Your task to perform on an android device: install app "eBay: The shopping marketplace" Image 0: 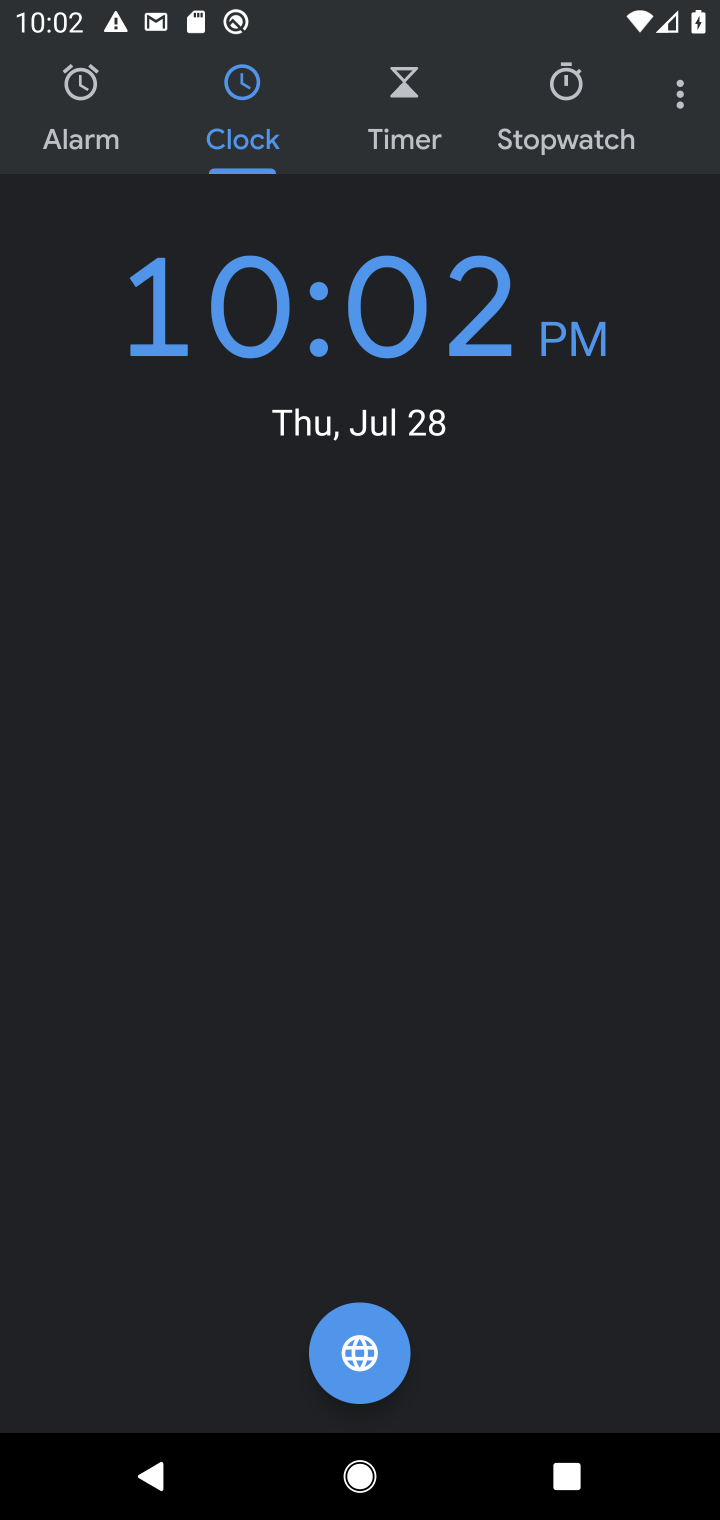
Step 0: press home button
Your task to perform on an android device: install app "eBay: The shopping marketplace" Image 1: 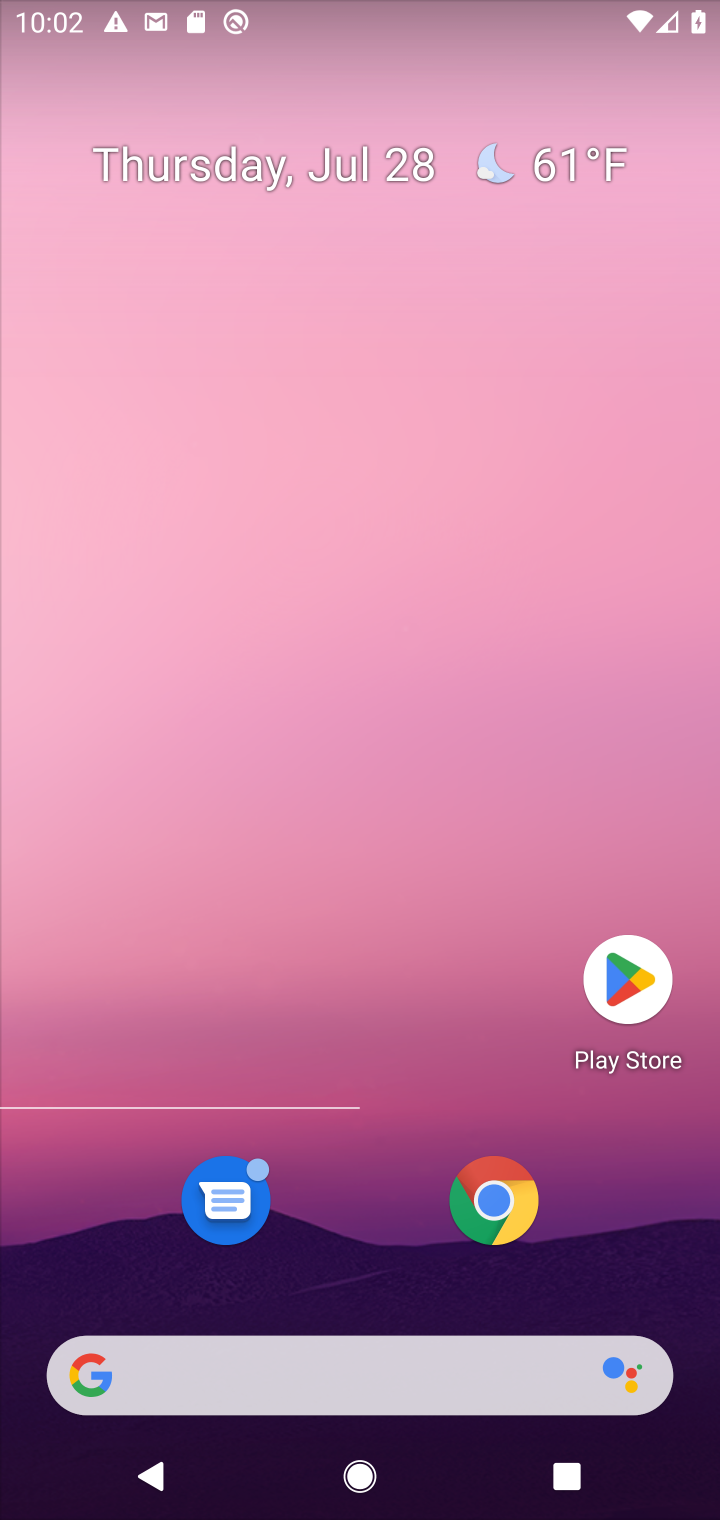
Step 1: click (626, 988)
Your task to perform on an android device: install app "eBay: The shopping marketplace" Image 2: 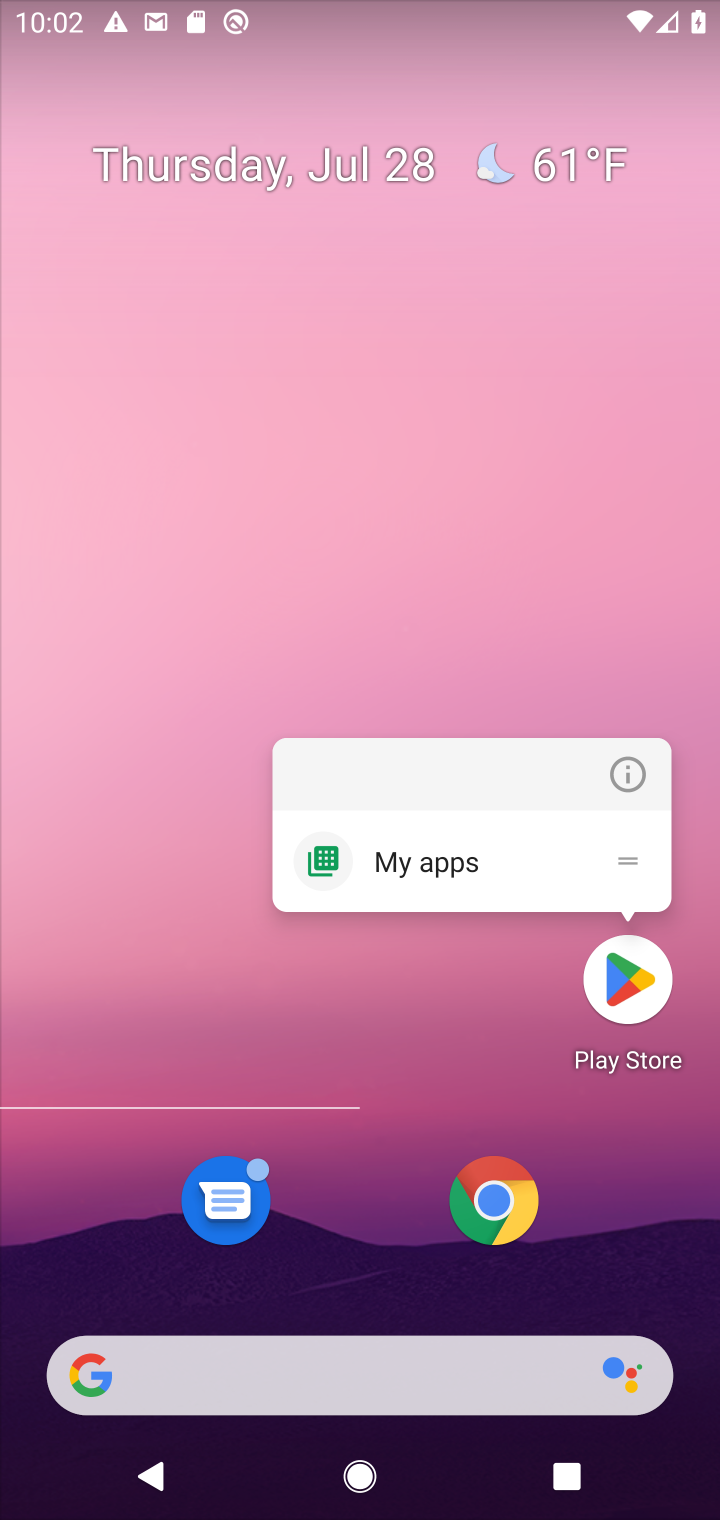
Step 2: click (626, 988)
Your task to perform on an android device: install app "eBay: The shopping marketplace" Image 3: 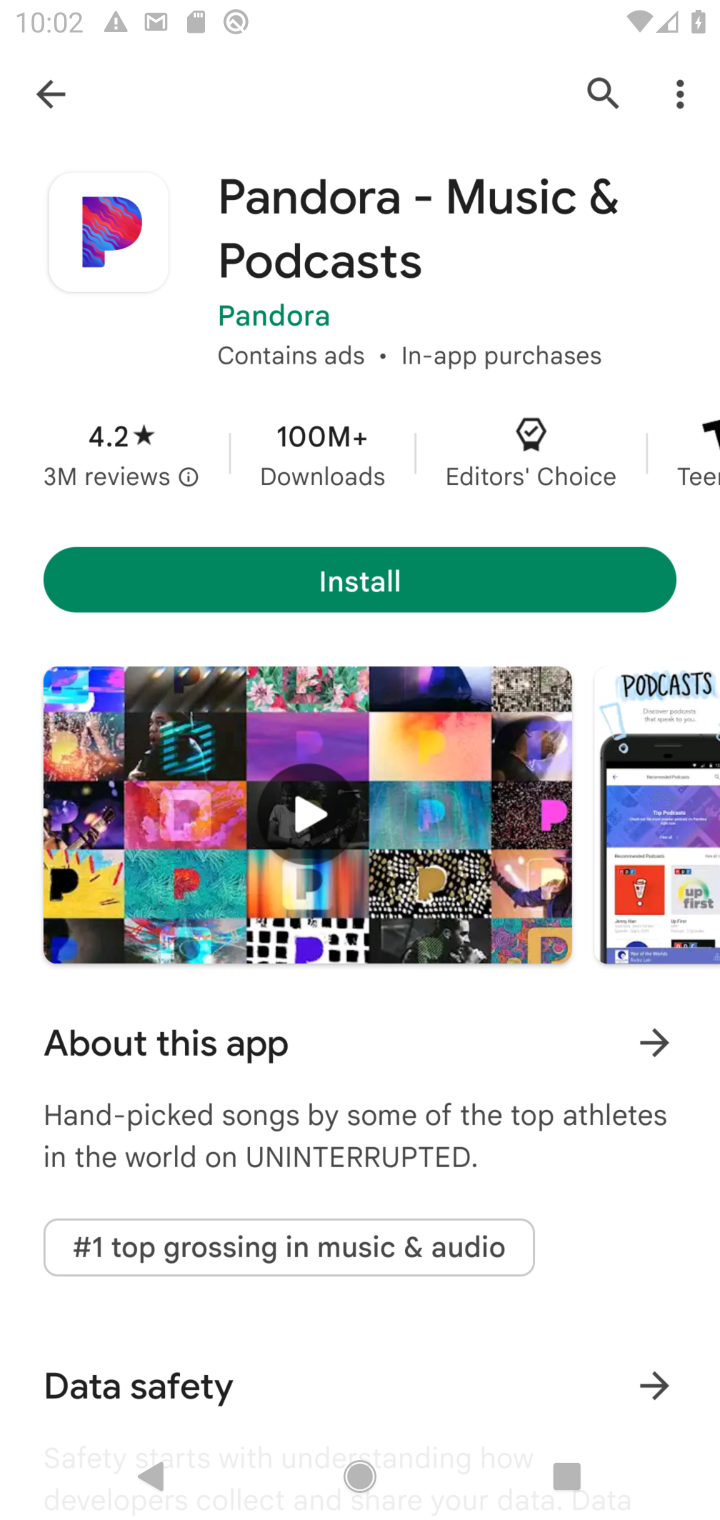
Step 3: click (626, 988)
Your task to perform on an android device: install app "eBay: The shopping marketplace" Image 4: 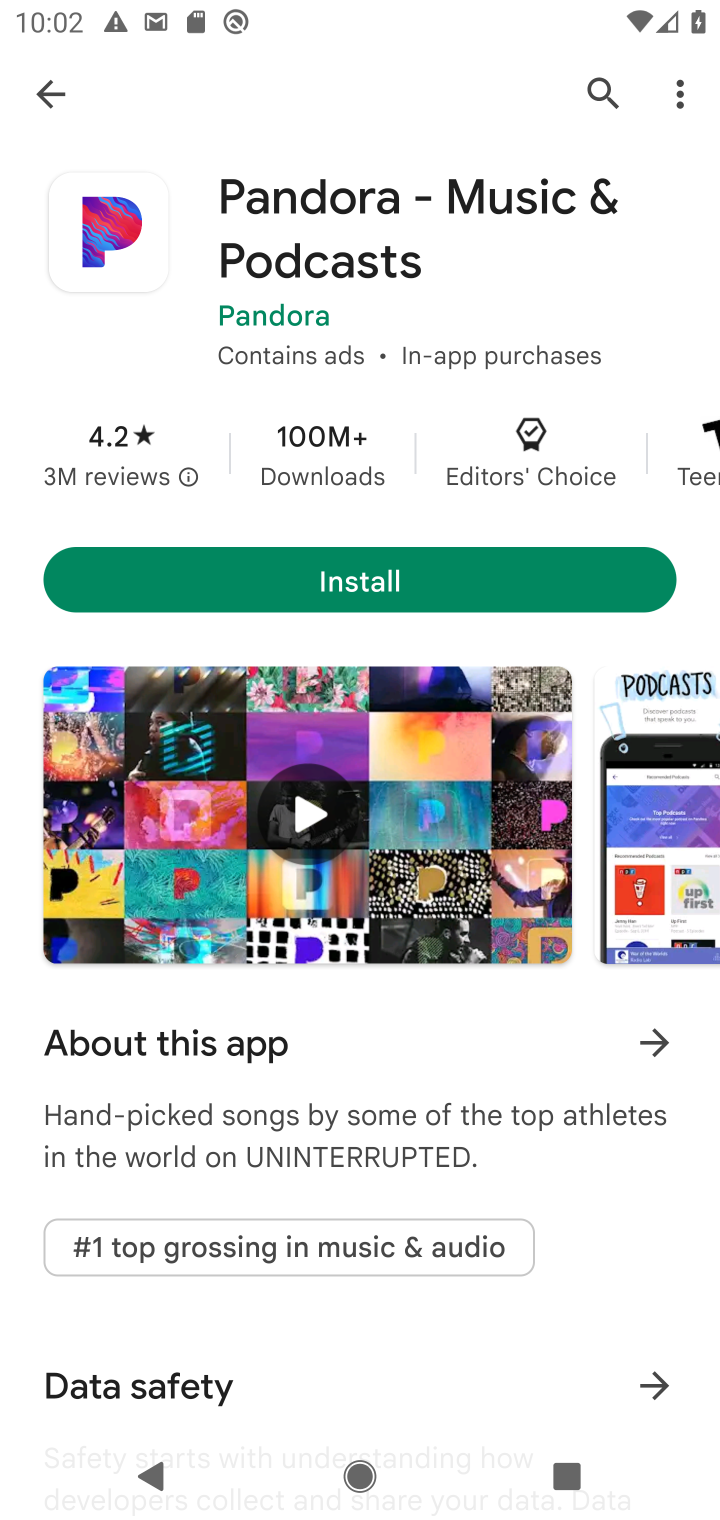
Step 4: click (607, 89)
Your task to perform on an android device: install app "eBay: The shopping marketplace" Image 5: 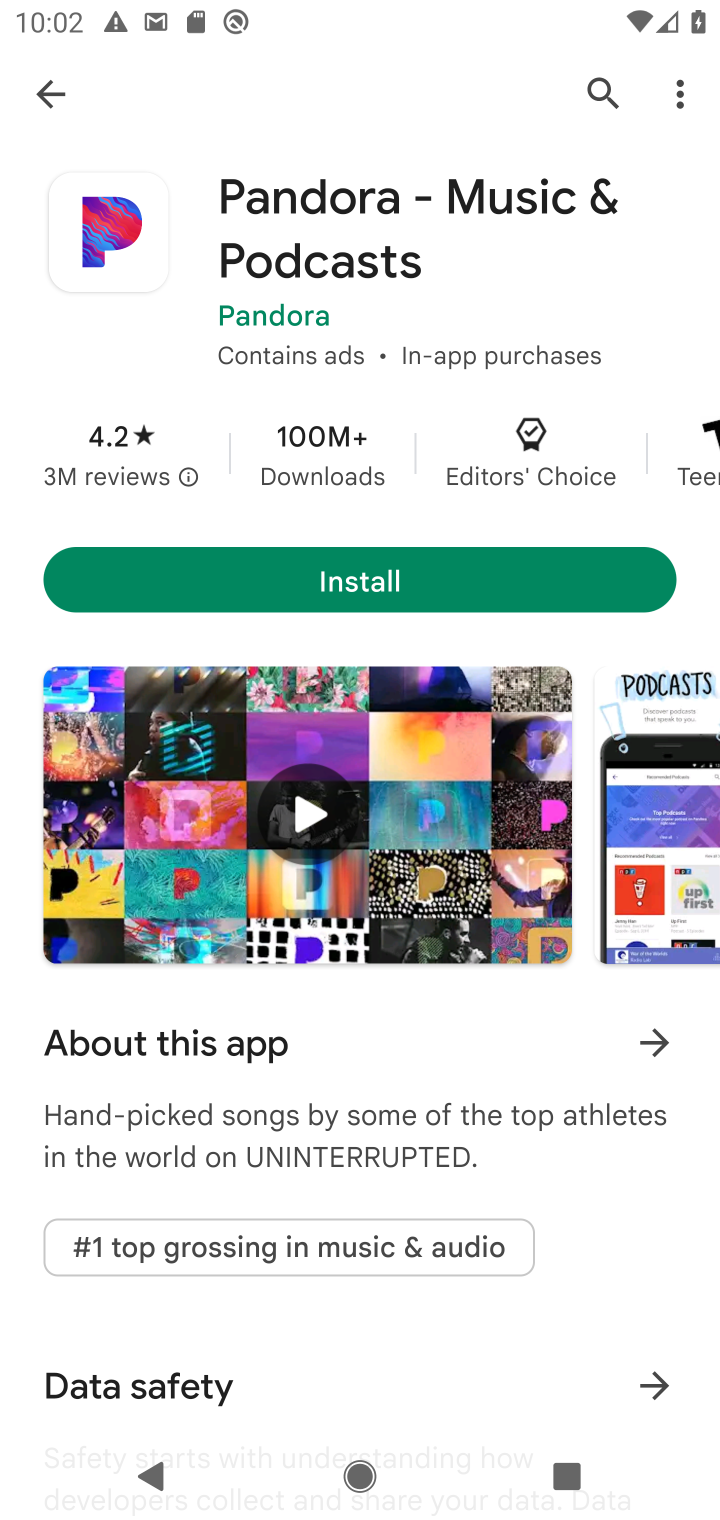
Step 5: click (595, 85)
Your task to perform on an android device: install app "eBay: The shopping marketplace" Image 6: 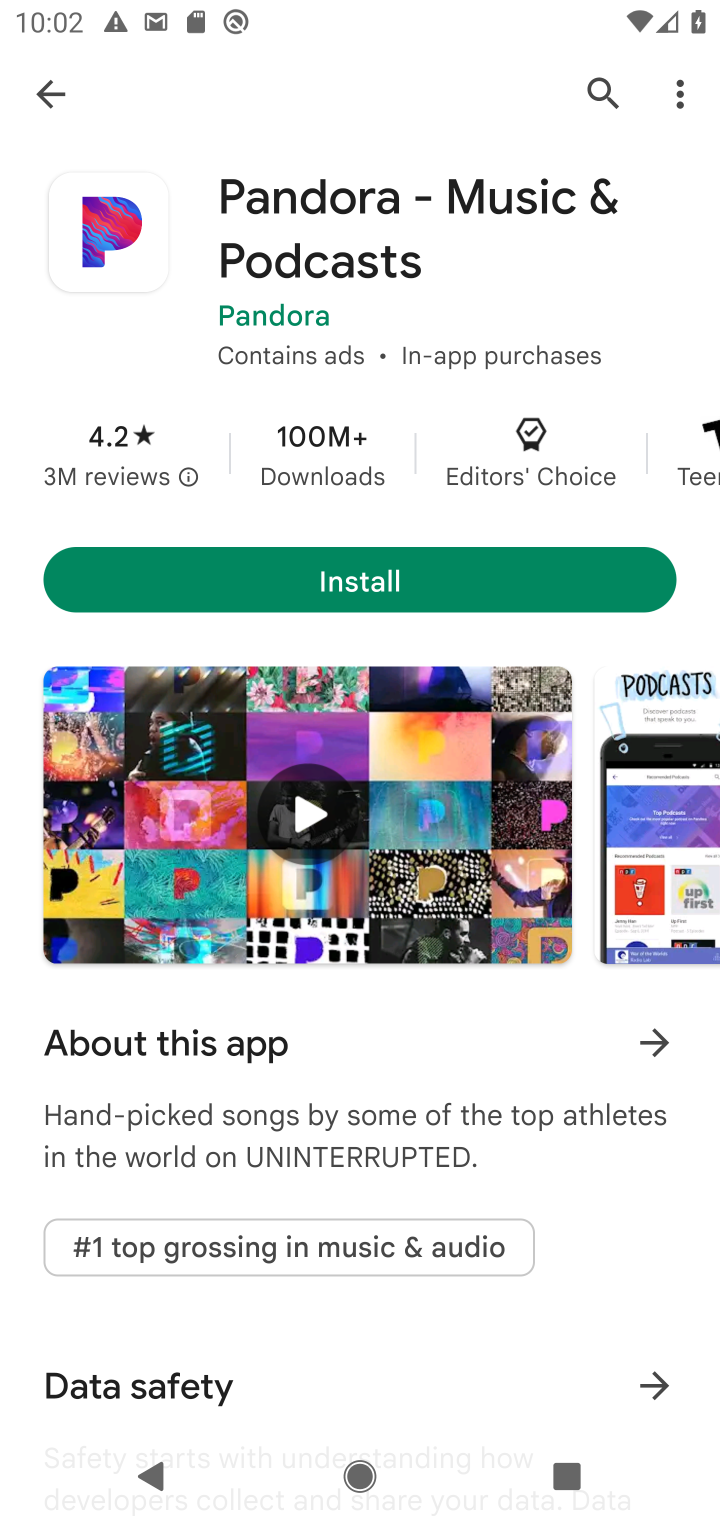
Step 6: click (48, 78)
Your task to perform on an android device: install app "eBay: The shopping marketplace" Image 7: 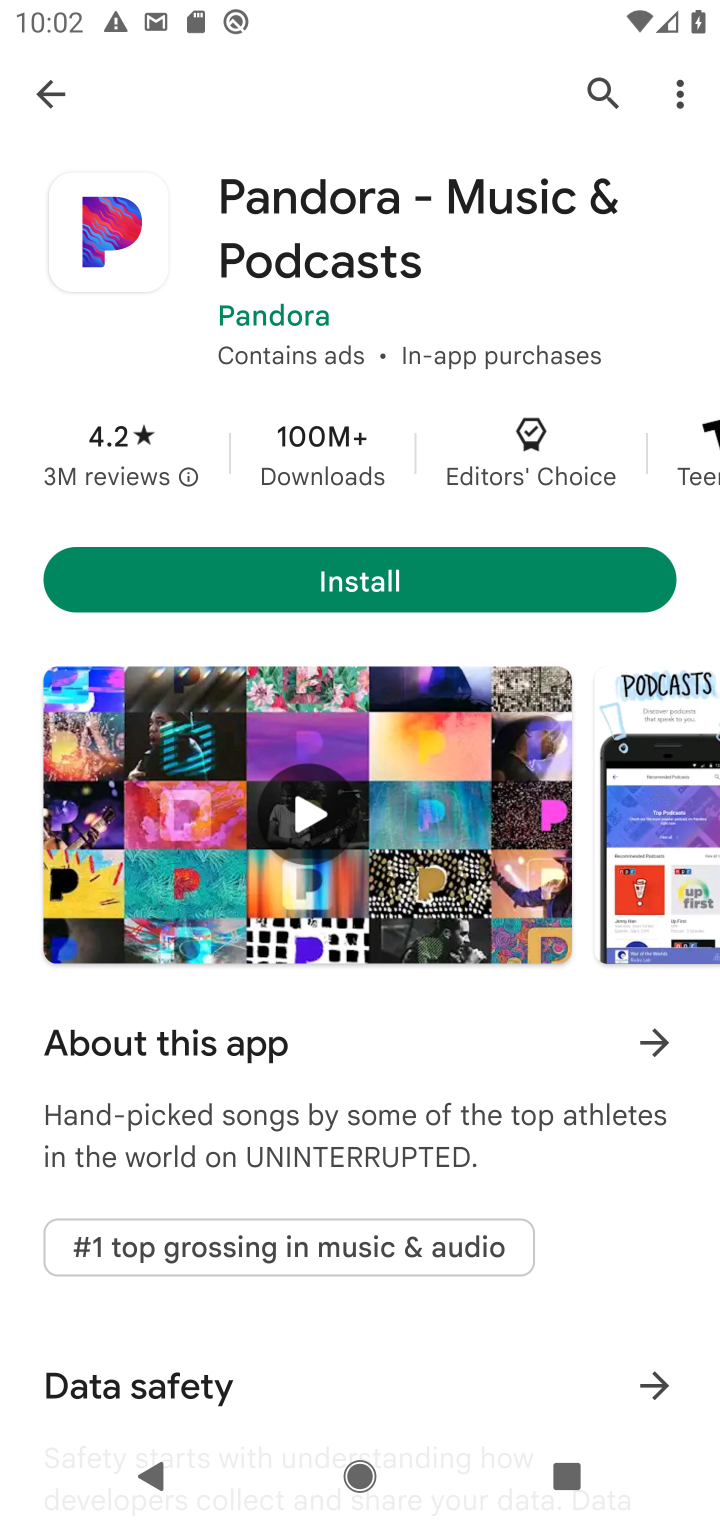
Step 7: click (596, 90)
Your task to perform on an android device: install app "eBay: The shopping marketplace" Image 8: 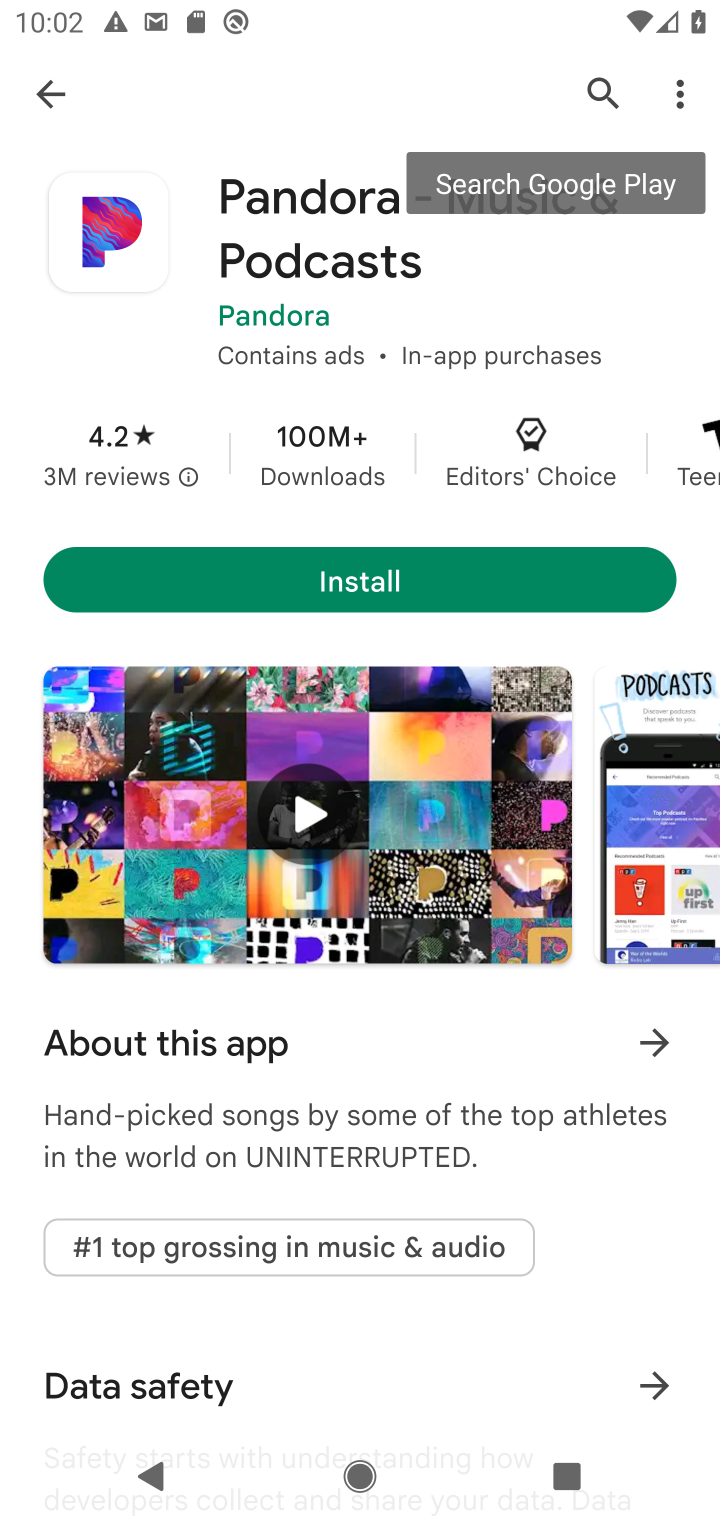
Step 8: click (416, 90)
Your task to perform on an android device: install app "eBay: The shopping marketplace" Image 9: 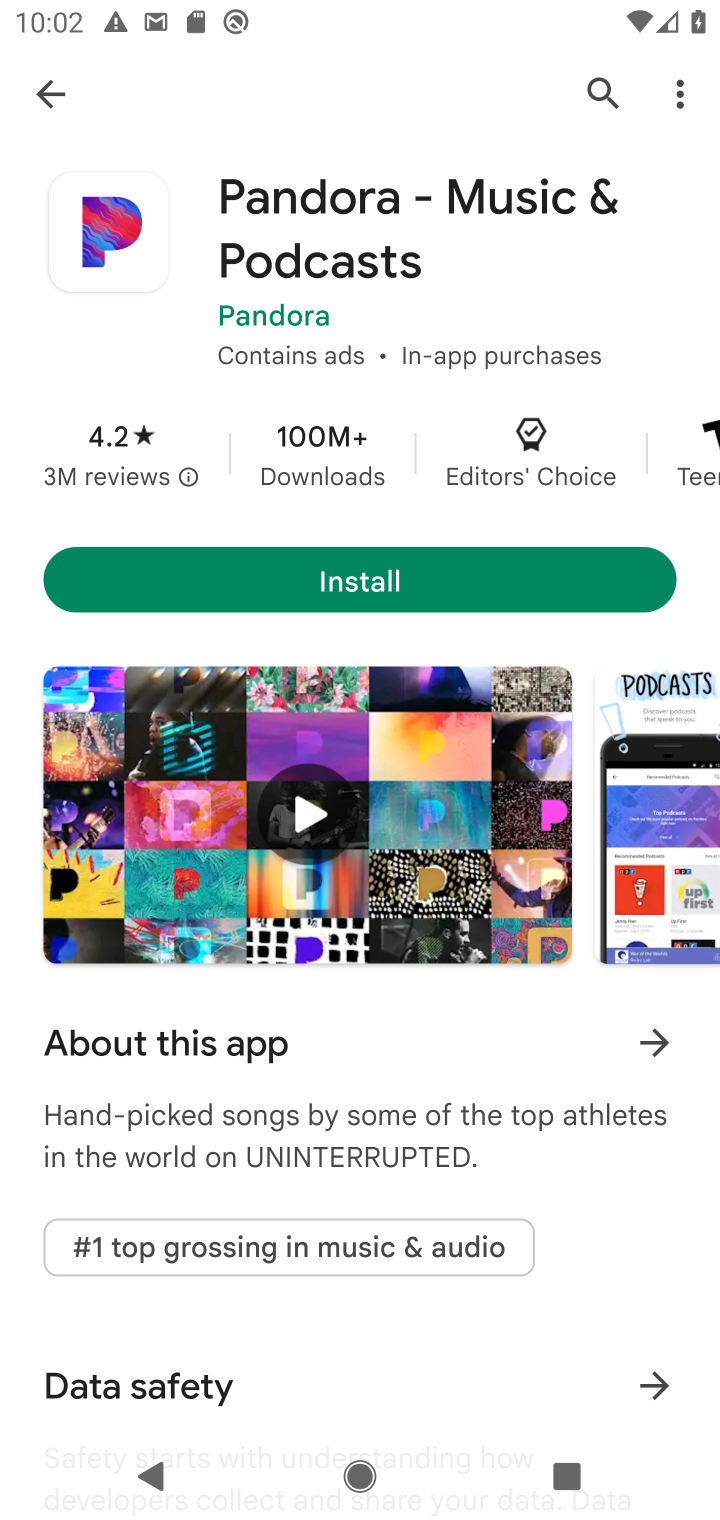
Step 9: click (54, 91)
Your task to perform on an android device: install app "eBay: The shopping marketplace" Image 10: 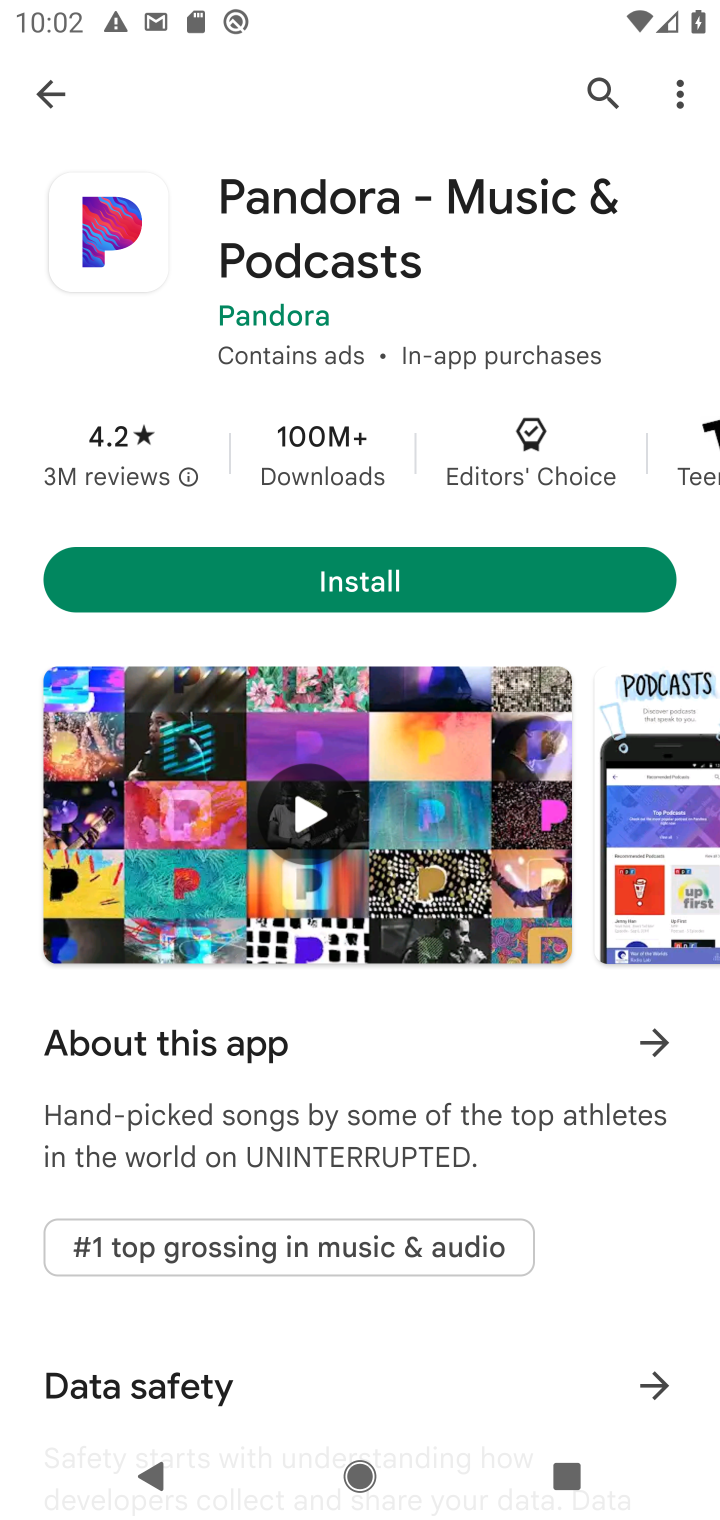
Step 10: click (46, 93)
Your task to perform on an android device: install app "eBay: The shopping marketplace" Image 11: 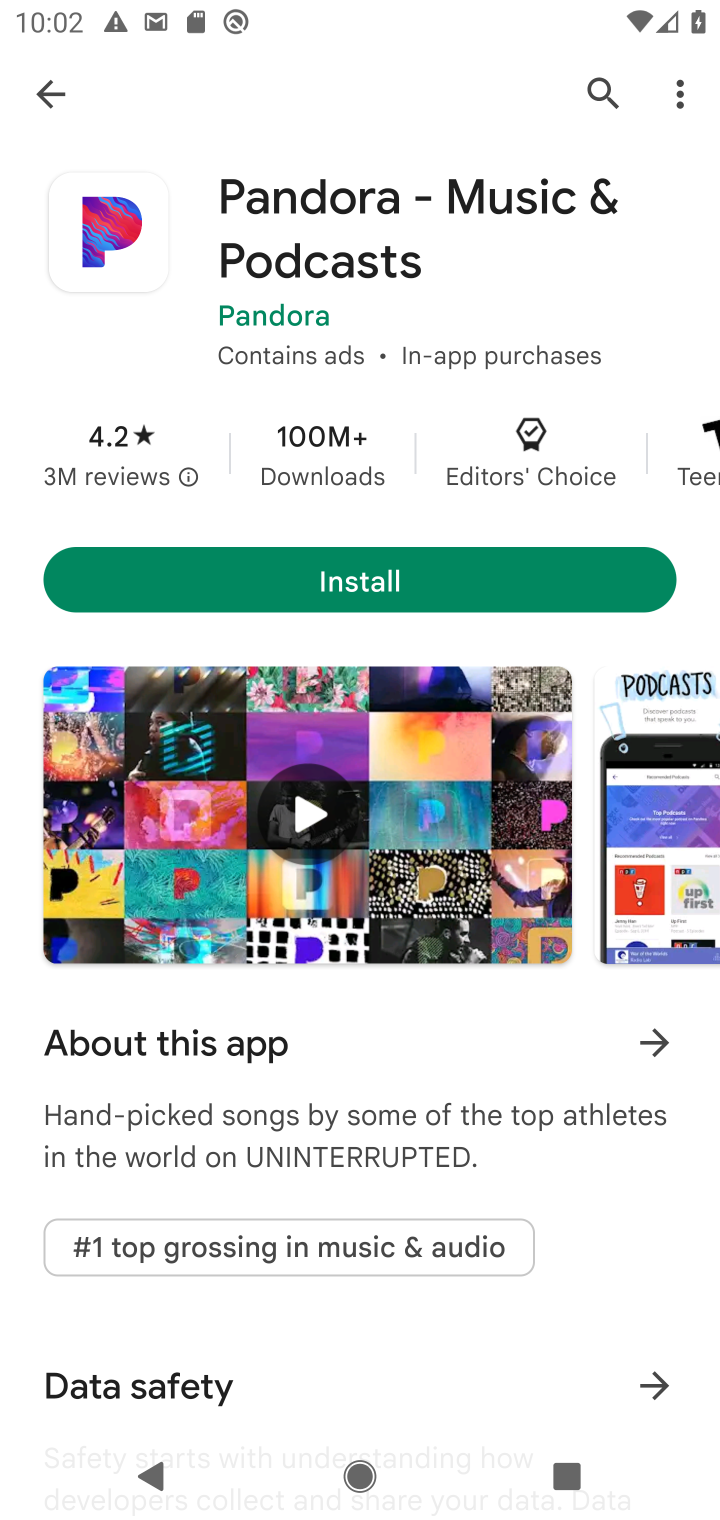
Step 11: click (49, 89)
Your task to perform on an android device: install app "eBay: The shopping marketplace" Image 12: 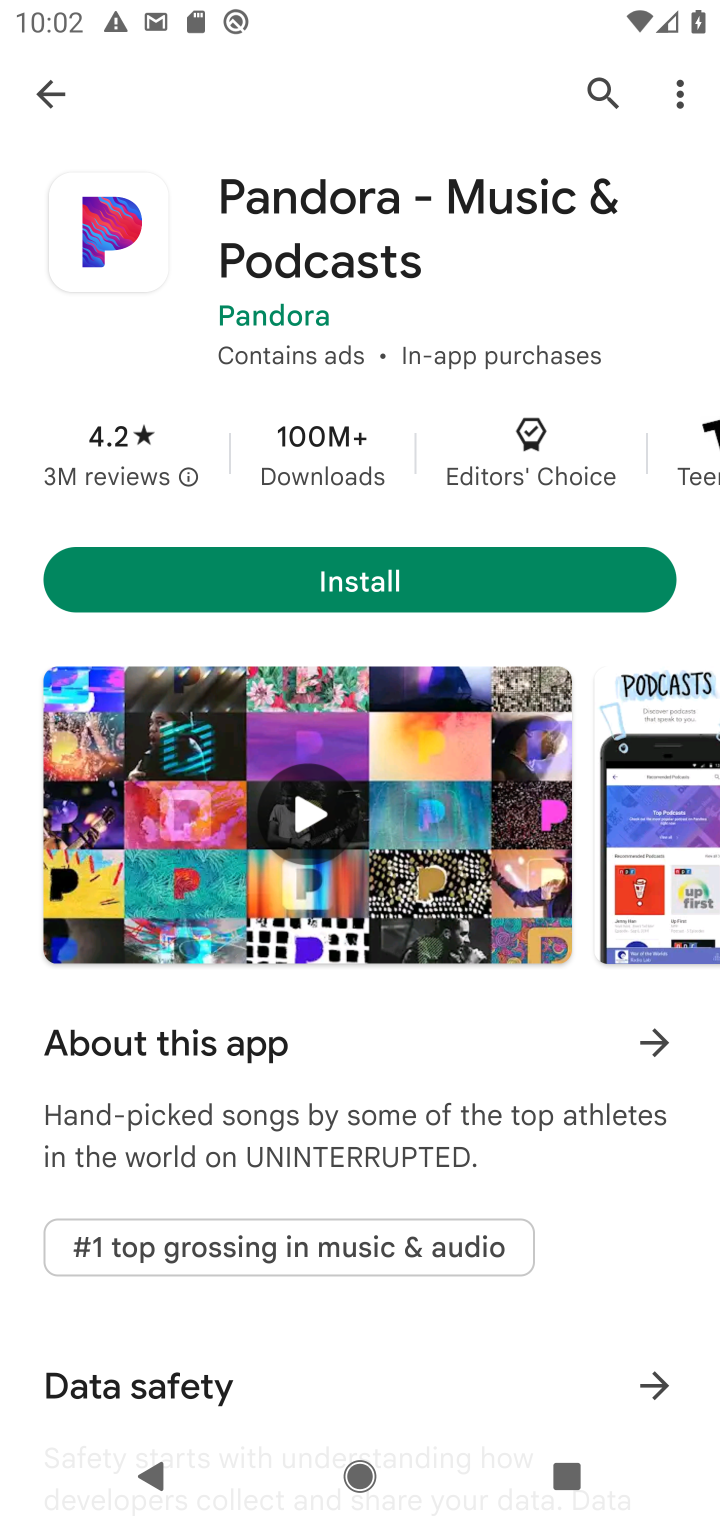
Step 12: click (589, 85)
Your task to perform on an android device: install app "eBay: The shopping marketplace" Image 13: 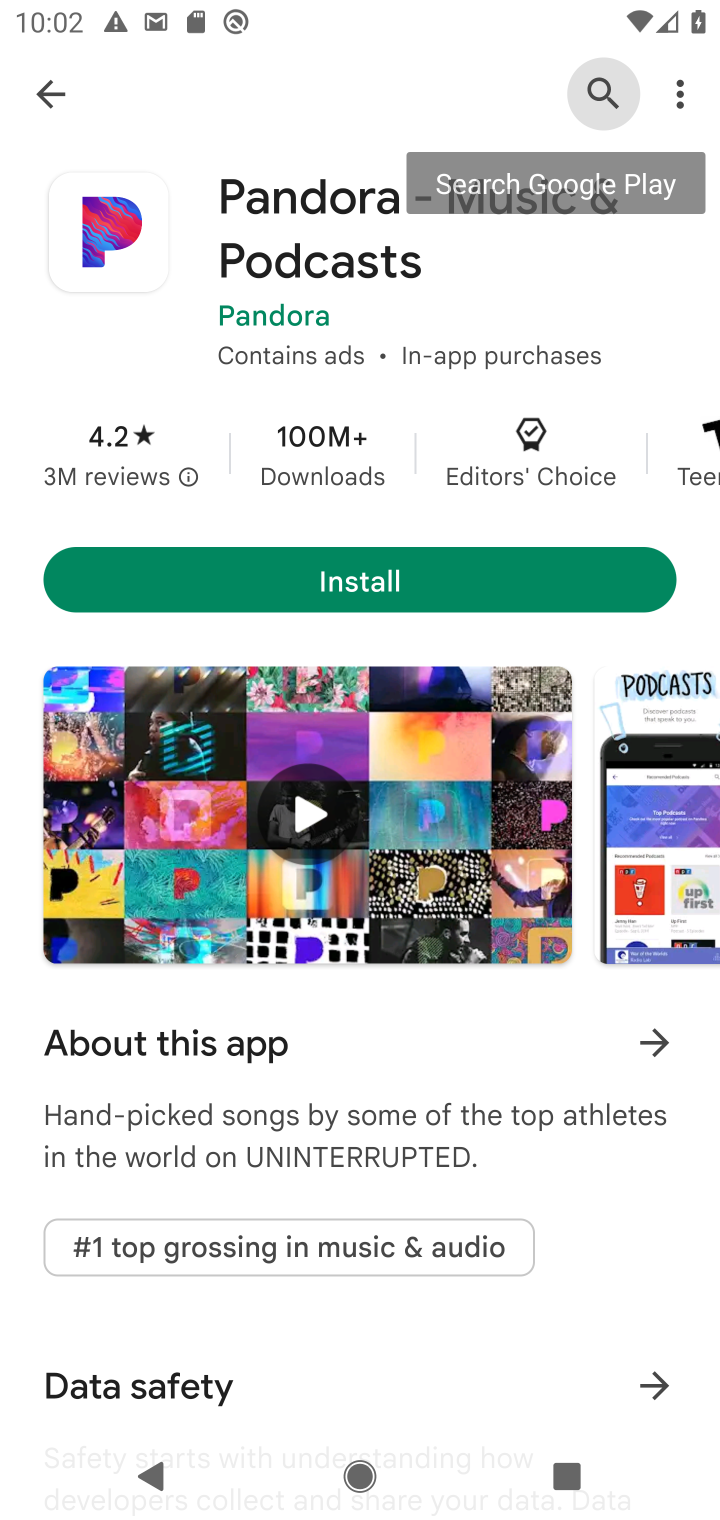
Step 13: click (598, 85)
Your task to perform on an android device: install app "eBay: The shopping marketplace" Image 14: 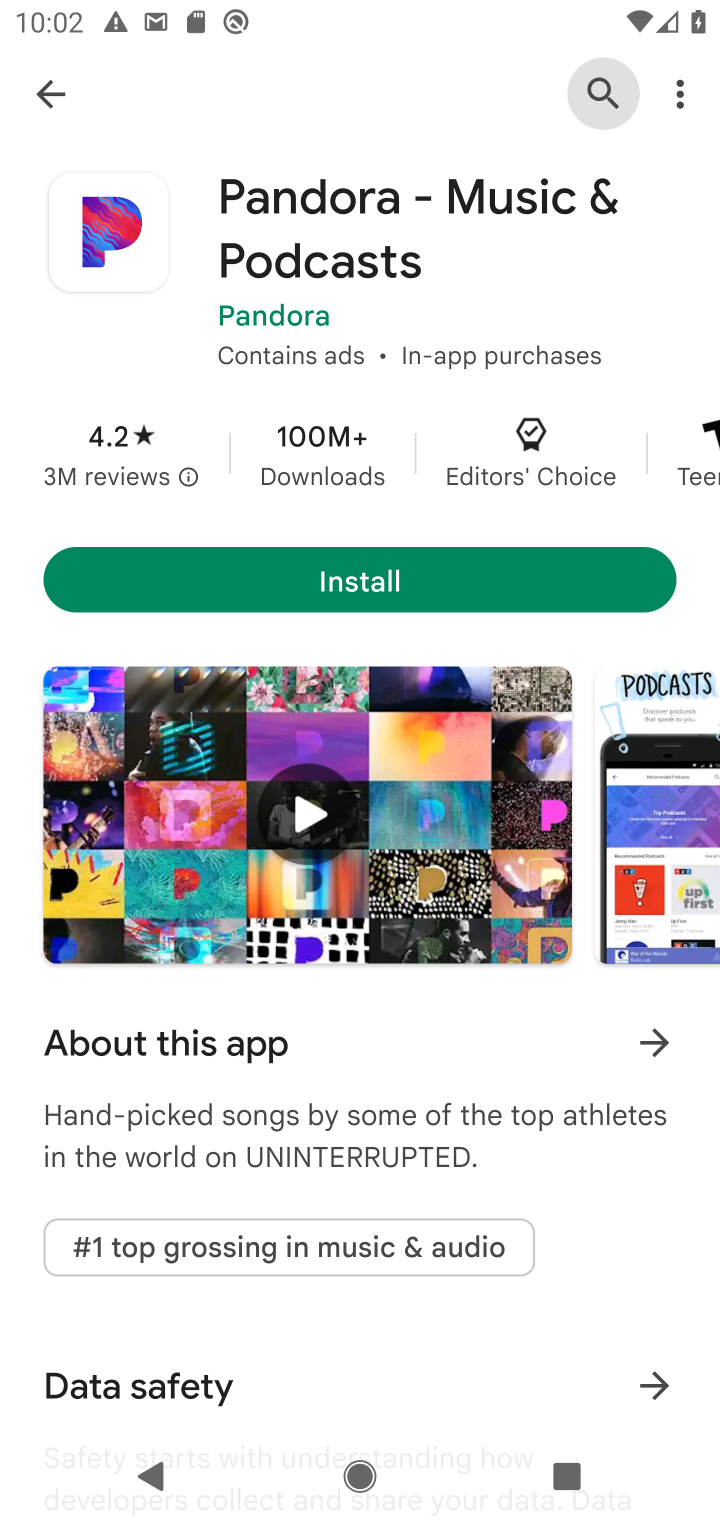
Step 14: click (598, 84)
Your task to perform on an android device: install app "eBay: The shopping marketplace" Image 15: 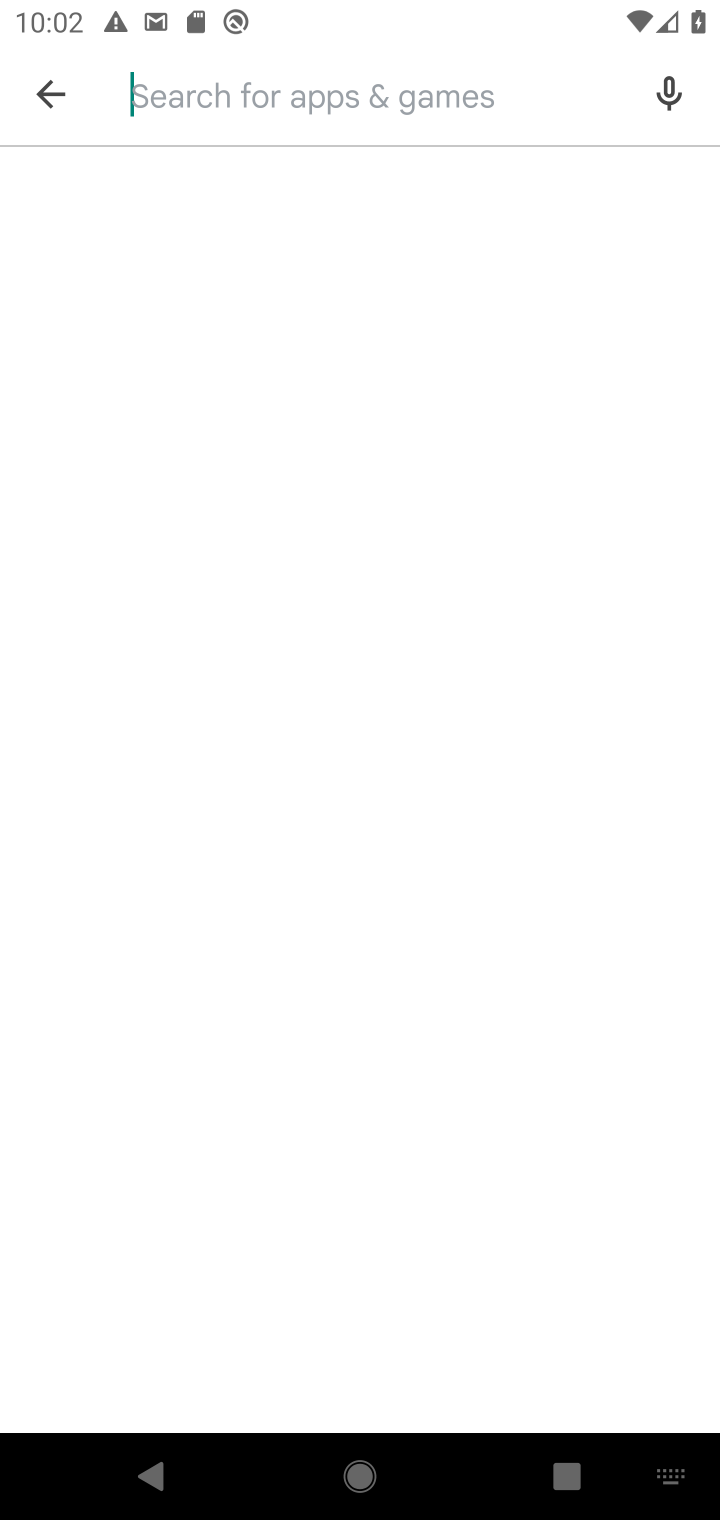
Step 15: click (135, 84)
Your task to perform on an android device: install app "eBay: The shopping marketplace" Image 16: 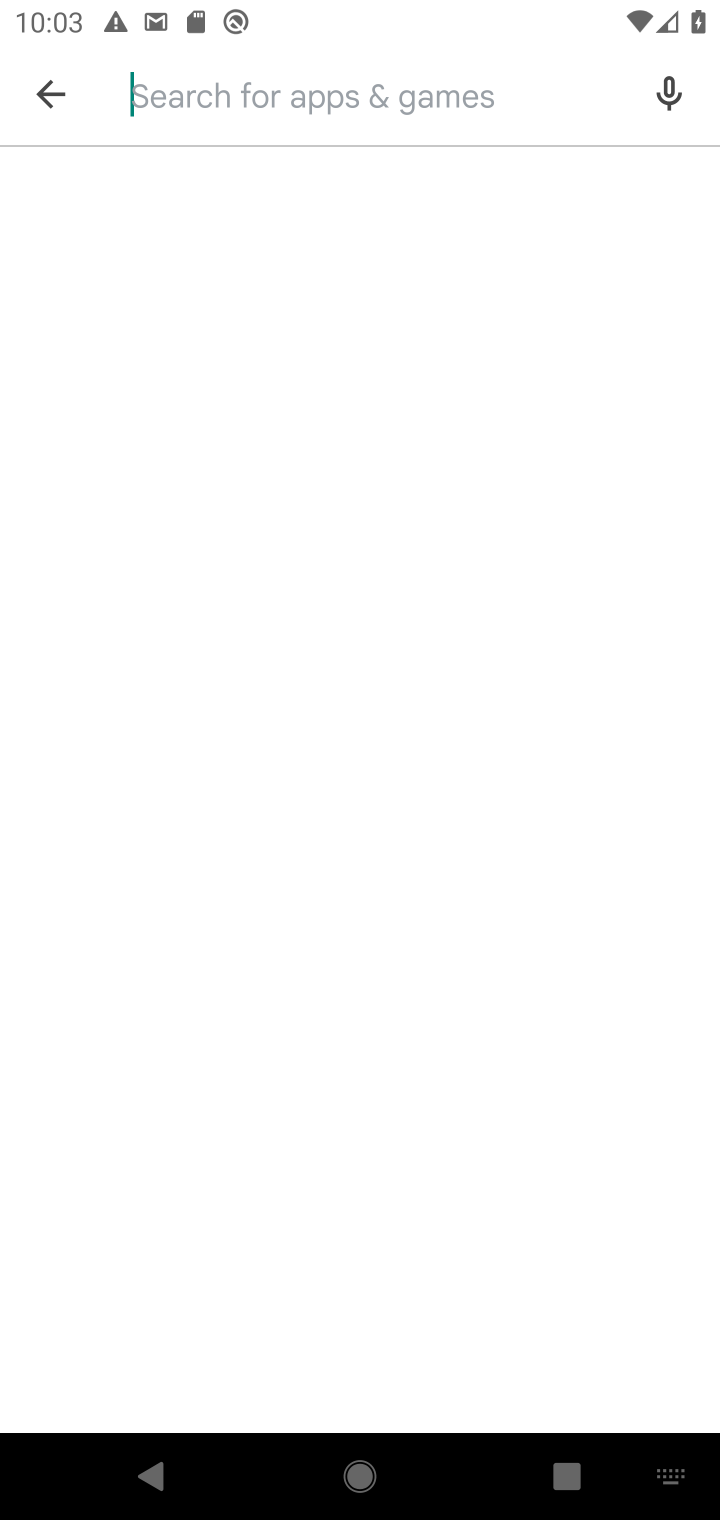
Step 16: type "eBay: The shopping marketplace"
Your task to perform on an android device: install app "eBay: The shopping marketplace" Image 17: 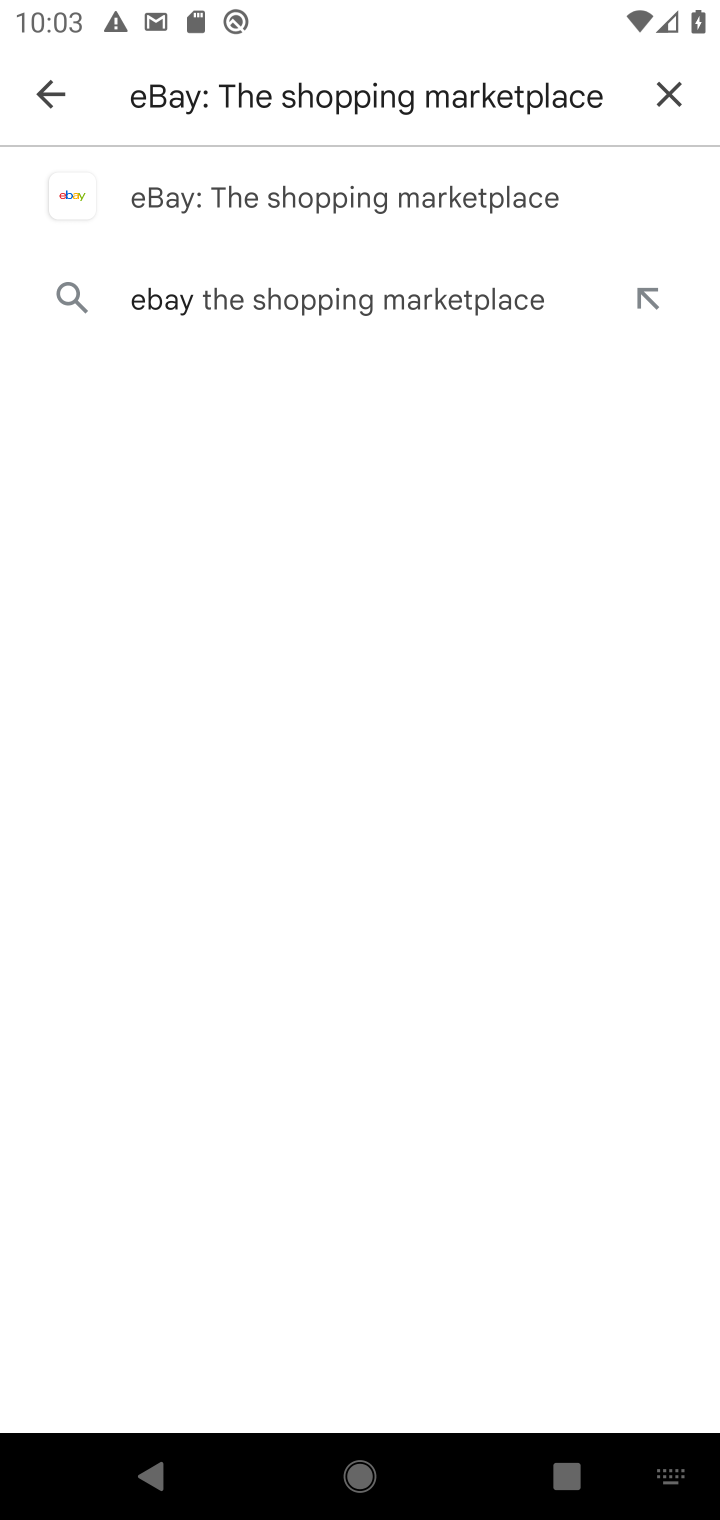
Step 17: click (317, 194)
Your task to perform on an android device: install app "eBay: The shopping marketplace" Image 18: 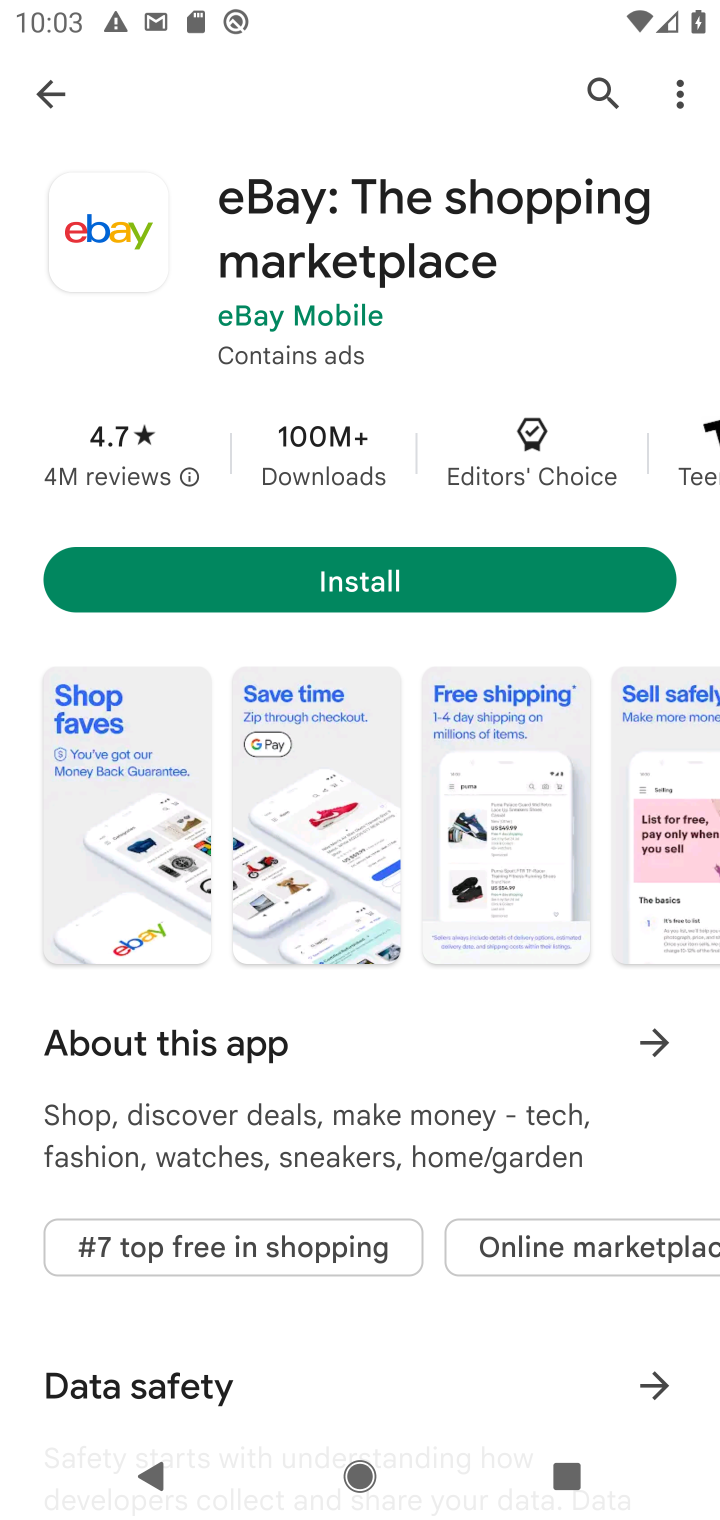
Step 18: click (359, 583)
Your task to perform on an android device: install app "eBay: The shopping marketplace" Image 19: 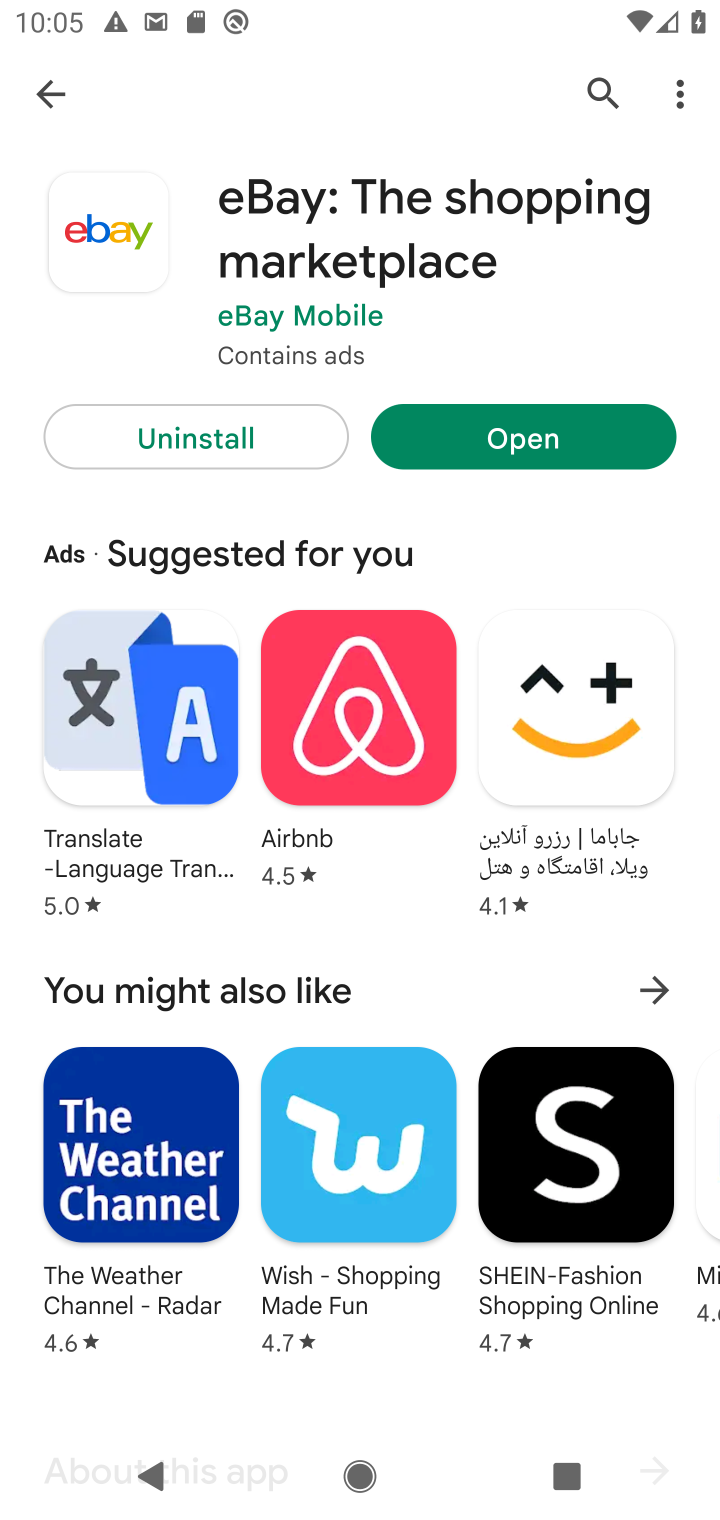
Step 19: task complete